Your task to perform on an android device: See recent photos Image 0: 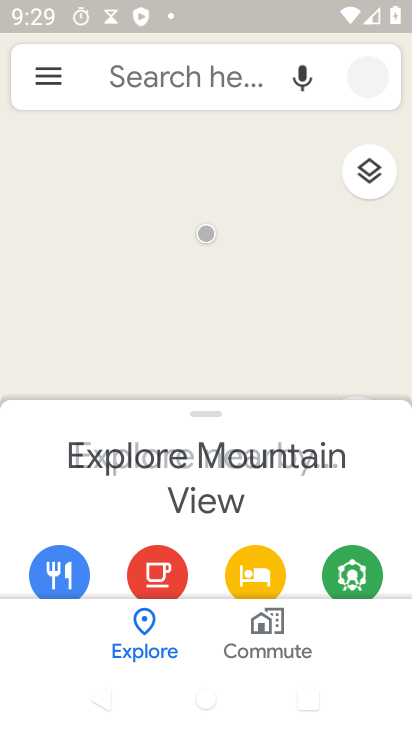
Step 0: press back button
Your task to perform on an android device: See recent photos Image 1: 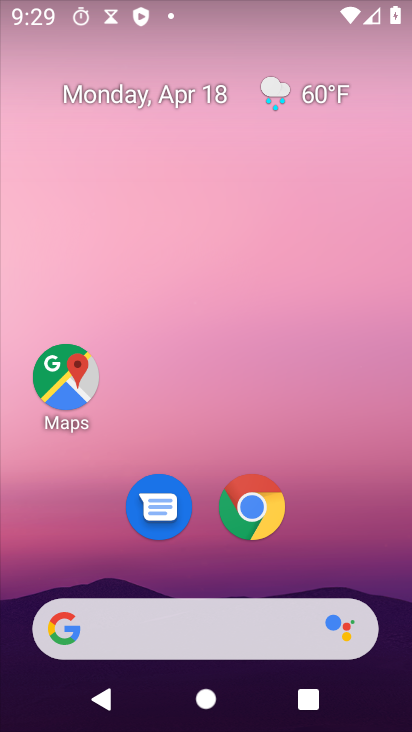
Step 1: drag from (317, 560) to (383, 74)
Your task to perform on an android device: See recent photos Image 2: 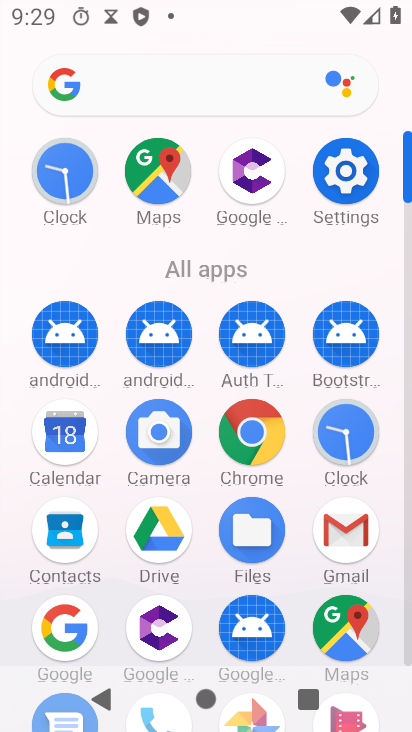
Step 2: drag from (212, 582) to (255, 369)
Your task to perform on an android device: See recent photos Image 3: 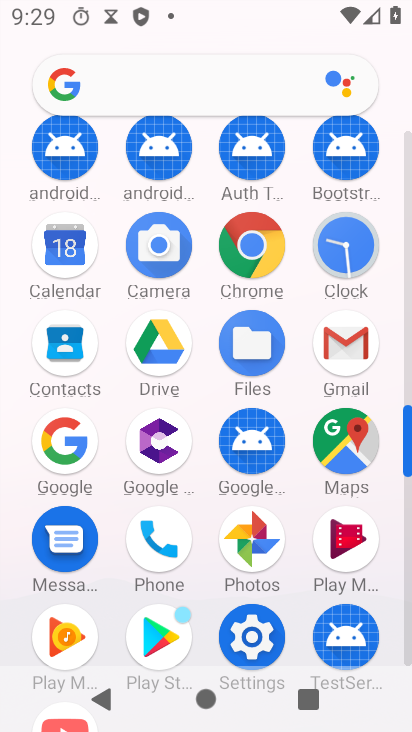
Step 3: click (271, 549)
Your task to perform on an android device: See recent photos Image 4: 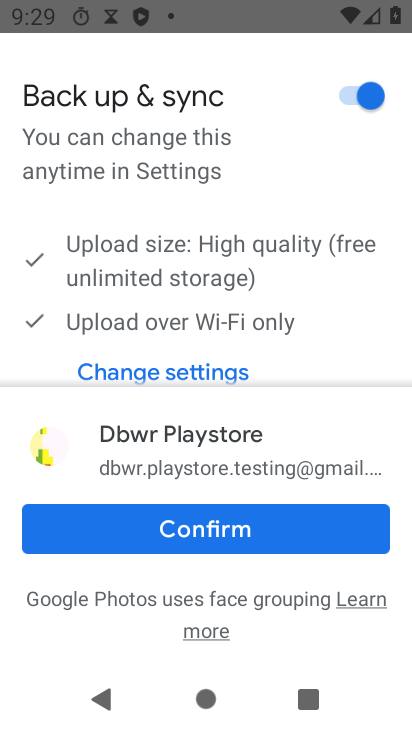
Step 4: click (210, 539)
Your task to perform on an android device: See recent photos Image 5: 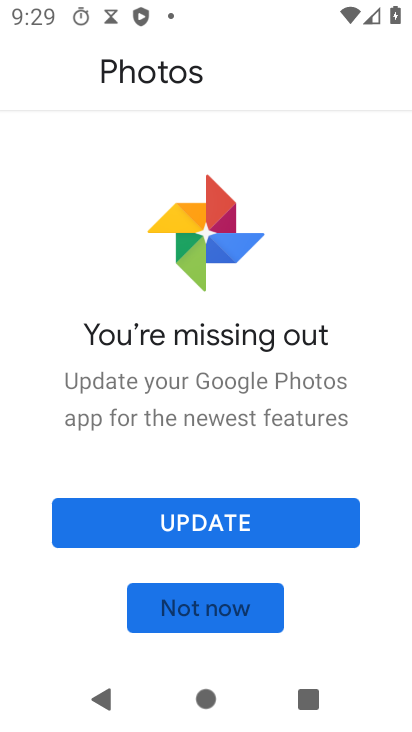
Step 5: click (205, 520)
Your task to perform on an android device: See recent photos Image 6: 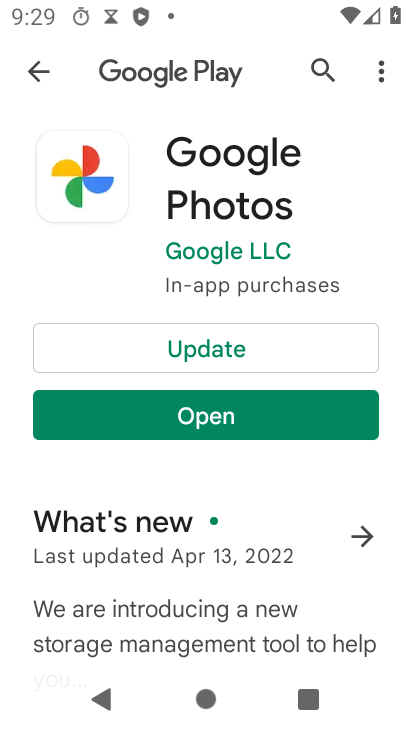
Step 6: click (182, 345)
Your task to perform on an android device: See recent photos Image 7: 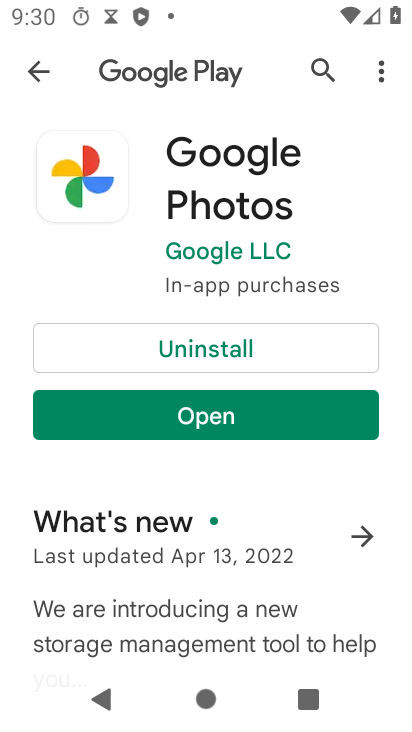
Step 7: click (170, 417)
Your task to perform on an android device: See recent photos Image 8: 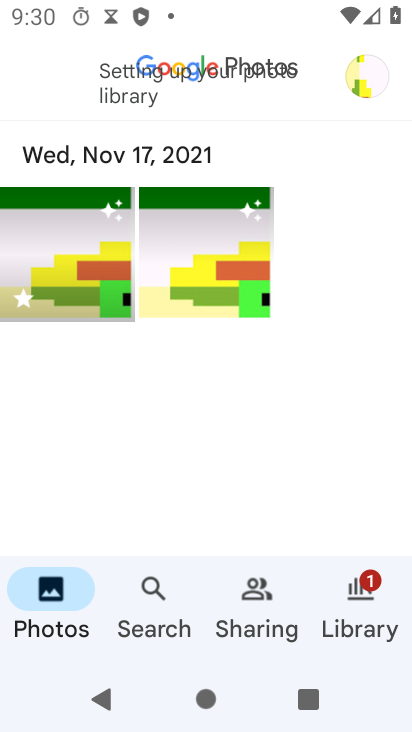
Step 8: task complete